Your task to perform on an android device: toggle show notifications on the lock screen Image 0: 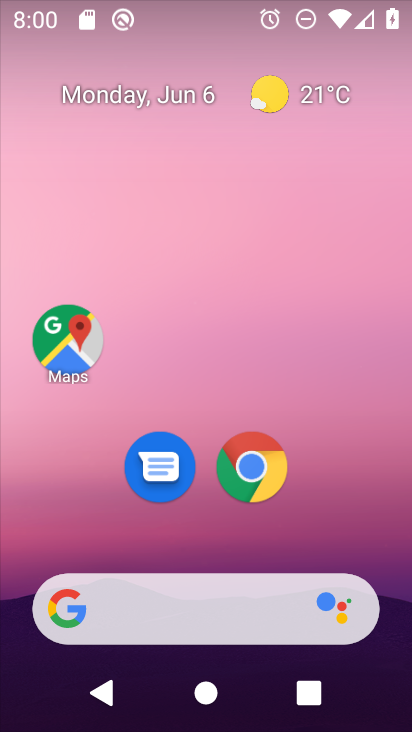
Step 0: drag from (368, 530) to (359, 176)
Your task to perform on an android device: toggle show notifications on the lock screen Image 1: 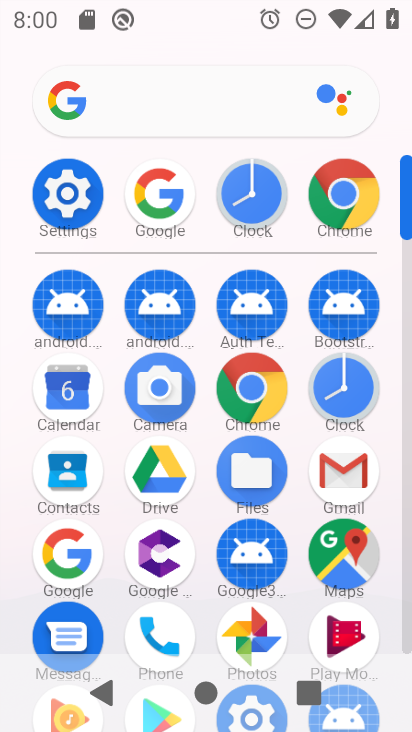
Step 1: click (83, 211)
Your task to perform on an android device: toggle show notifications on the lock screen Image 2: 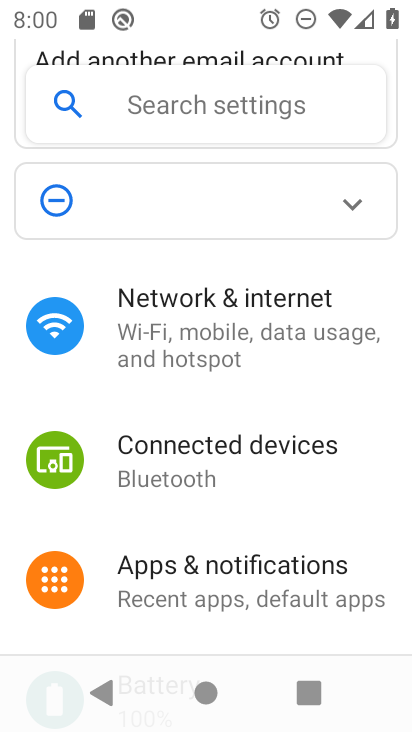
Step 2: drag from (374, 530) to (375, 424)
Your task to perform on an android device: toggle show notifications on the lock screen Image 3: 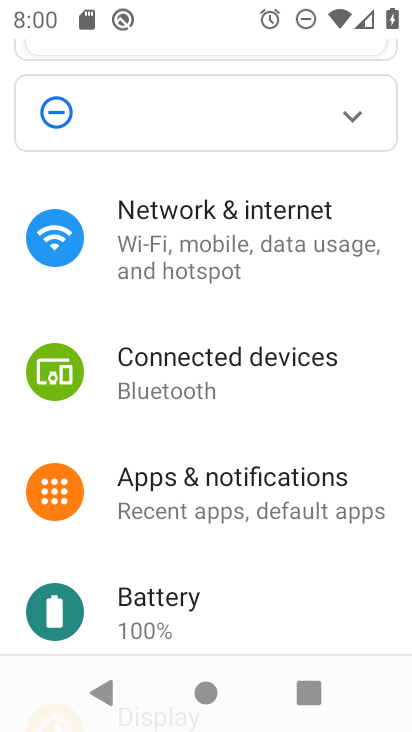
Step 3: drag from (367, 567) to (366, 401)
Your task to perform on an android device: toggle show notifications on the lock screen Image 4: 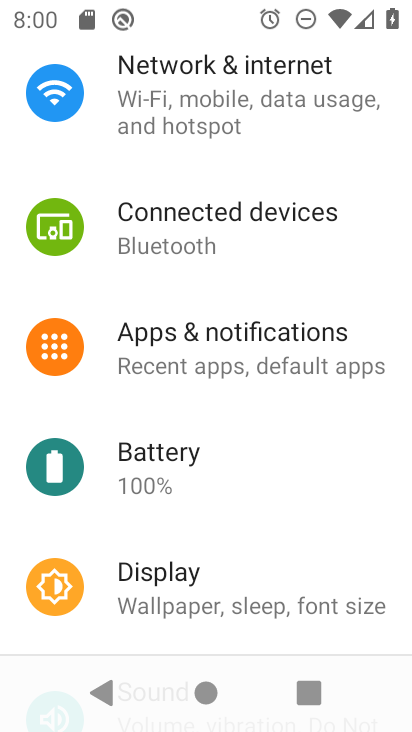
Step 4: drag from (355, 540) to (348, 379)
Your task to perform on an android device: toggle show notifications on the lock screen Image 5: 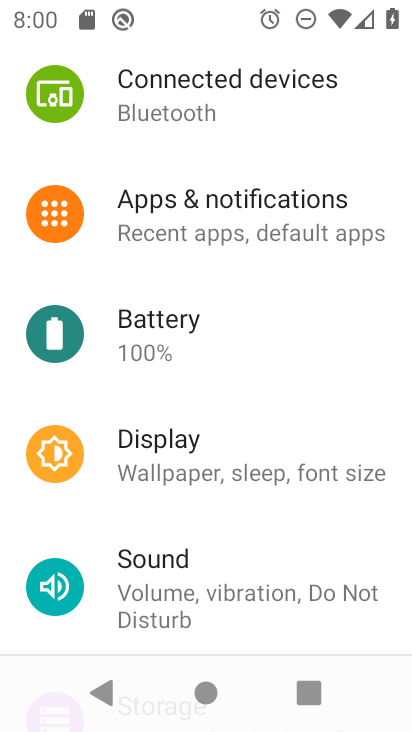
Step 5: drag from (337, 546) to (345, 436)
Your task to perform on an android device: toggle show notifications on the lock screen Image 6: 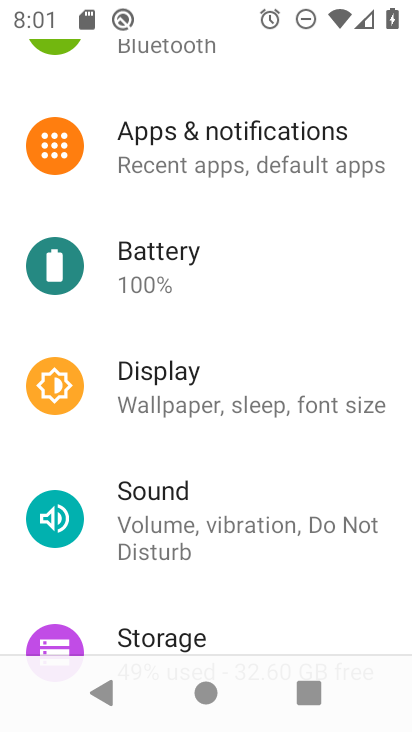
Step 6: click (279, 163)
Your task to perform on an android device: toggle show notifications on the lock screen Image 7: 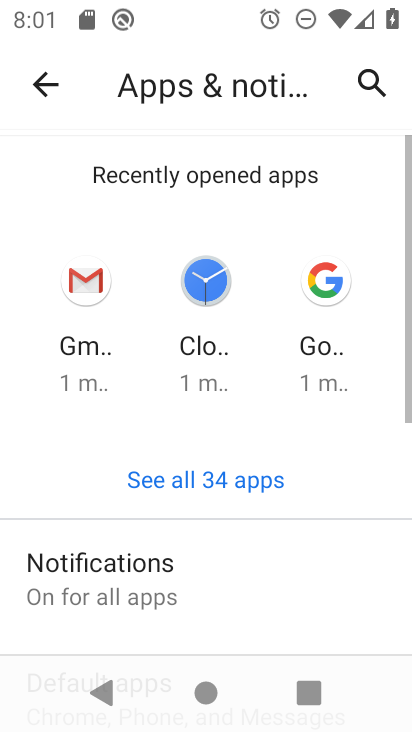
Step 7: drag from (309, 539) to (329, 416)
Your task to perform on an android device: toggle show notifications on the lock screen Image 8: 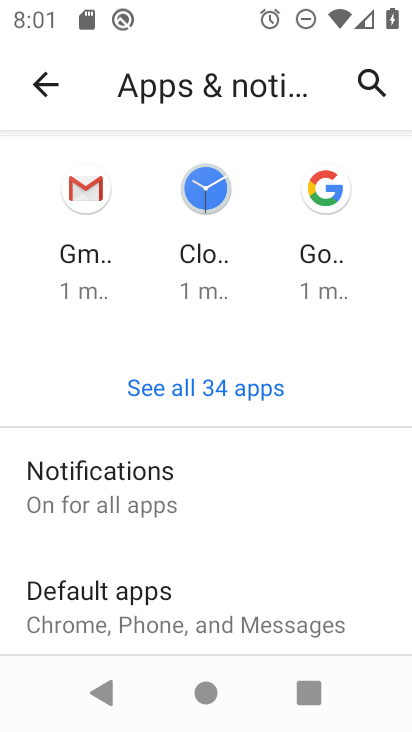
Step 8: drag from (351, 522) to (353, 407)
Your task to perform on an android device: toggle show notifications on the lock screen Image 9: 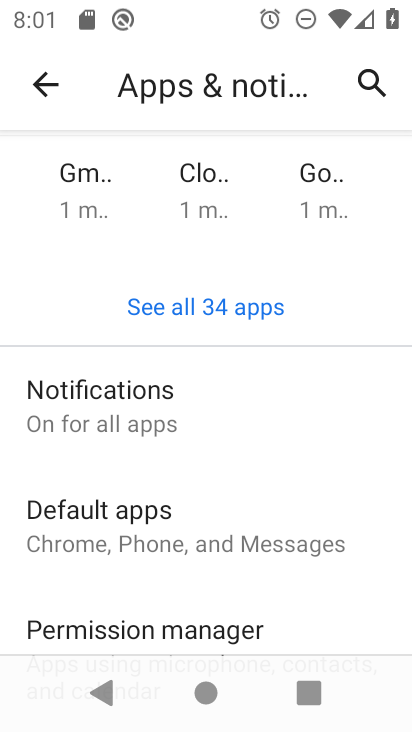
Step 9: drag from (361, 586) to (342, 446)
Your task to perform on an android device: toggle show notifications on the lock screen Image 10: 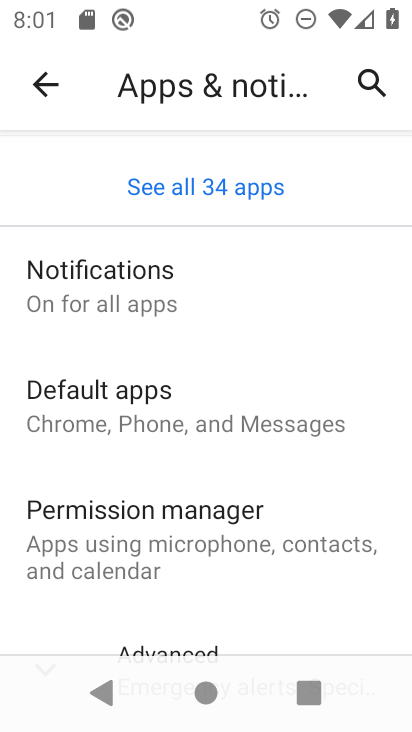
Step 10: click (149, 298)
Your task to perform on an android device: toggle show notifications on the lock screen Image 11: 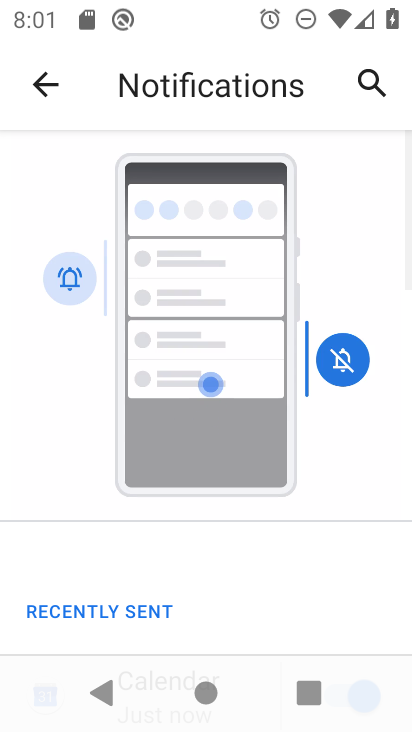
Step 11: drag from (312, 534) to (299, 345)
Your task to perform on an android device: toggle show notifications on the lock screen Image 12: 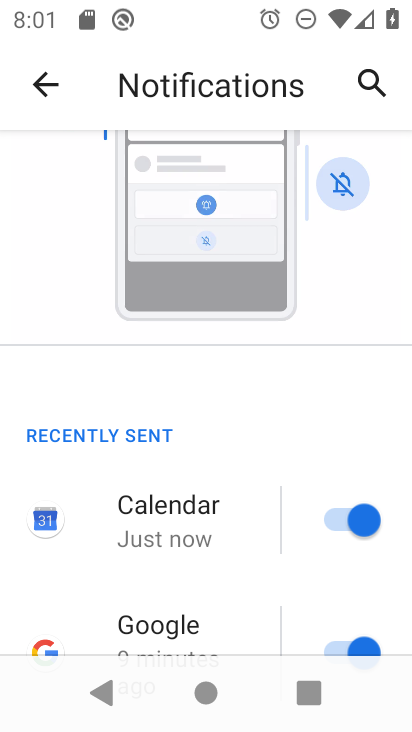
Step 12: drag from (285, 518) to (286, 356)
Your task to perform on an android device: toggle show notifications on the lock screen Image 13: 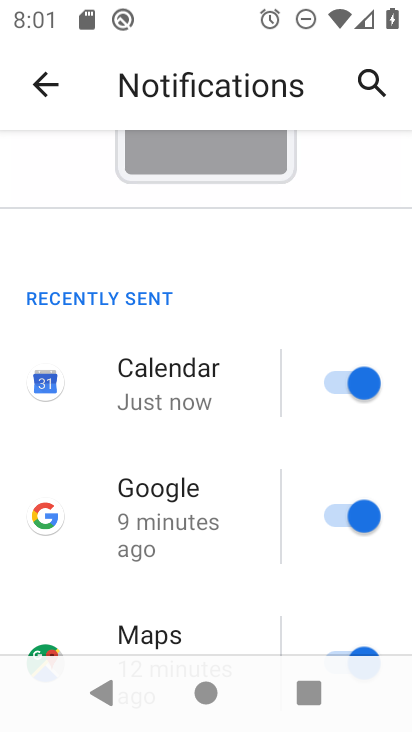
Step 13: drag from (242, 507) to (252, 340)
Your task to perform on an android device: toggle show notifications on the lock screen Image 14: 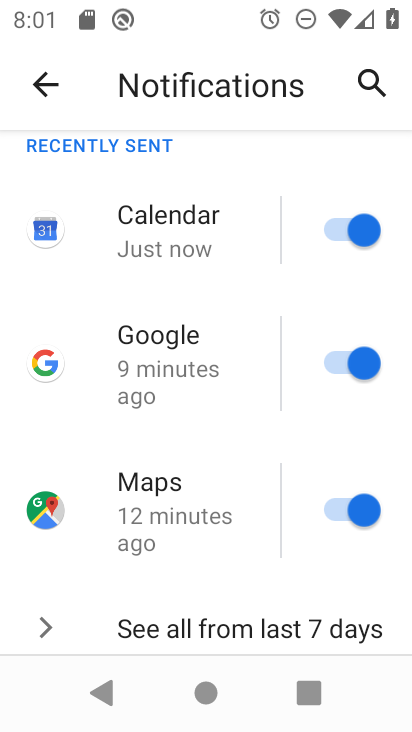
Step 14: drag from (231, 532) to (222, 350)
Your task to perform on an android device: toggle show notifications on the lock screen Image 15: 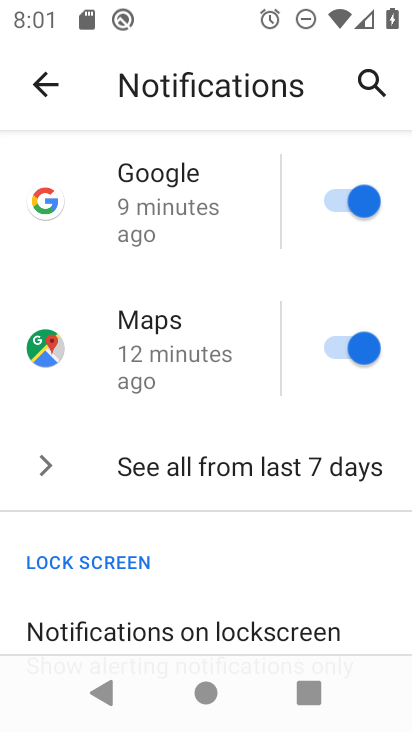
Step 15: drag from (242, 532) to (231, 382)
Your task to perform on an android device: toggle show notifications on the lock screen Image 16: 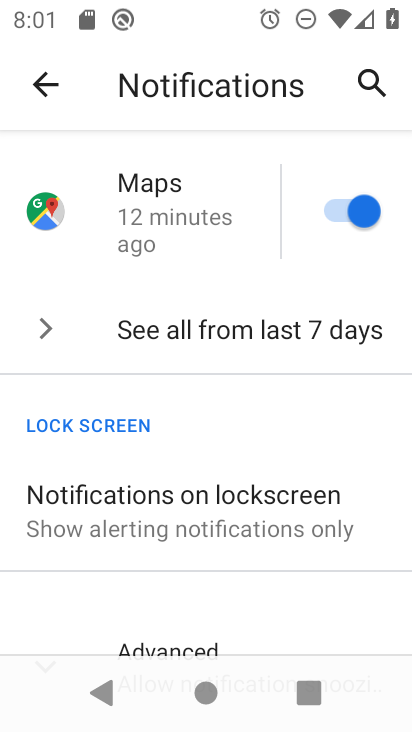
Step 16: drag from (256, 559) to (232, 364)
Your task to perform on an android device: toggle show notifications on the lock screen Image 17: 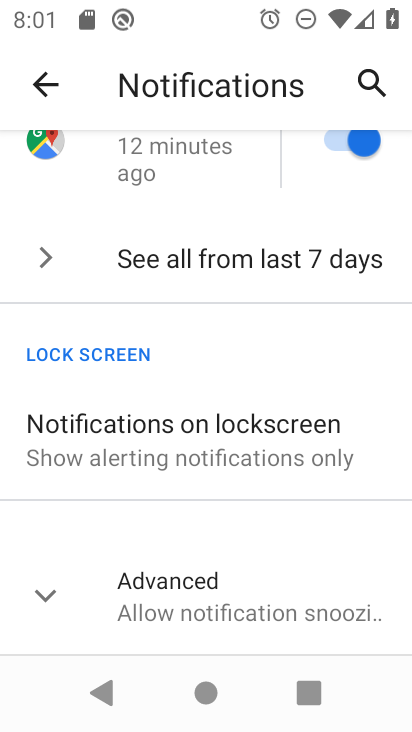
Step 17: click (268, 443)
Your task to perform on an android device: toggle show notifications on the lock screen Image 18: 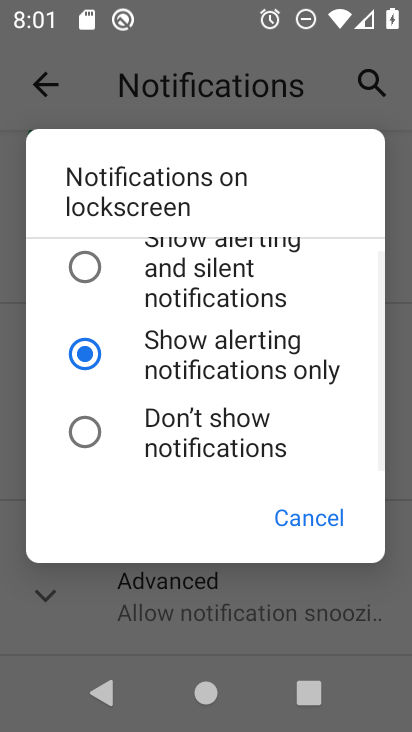
Step 18: click (66, 252)
Your task to perform on an android device: toggle show notifications on the lock screen Image 19: 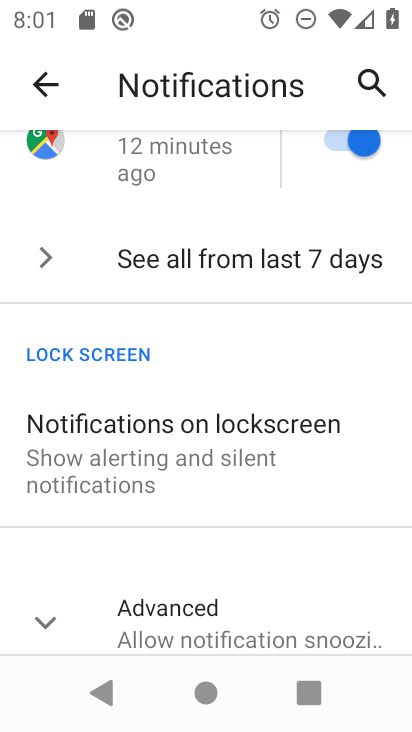
Step 19: task complete